Your task to perform on an android device: Go to network settings Image 0: 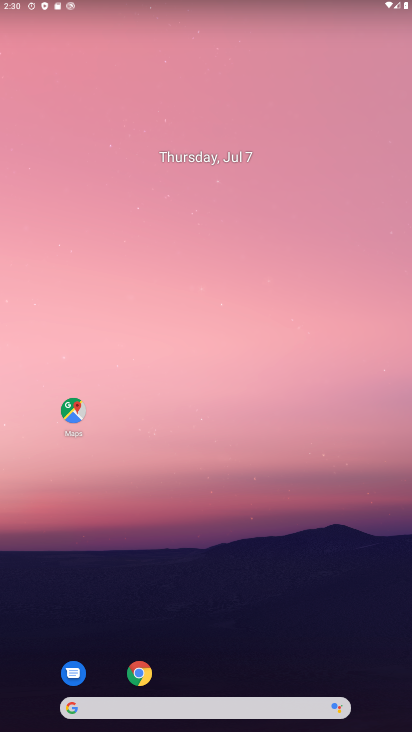
Step 0: drag from (211, 675) to (150, 4)
Your task to perform on an android device: Go to network settings Image 1: 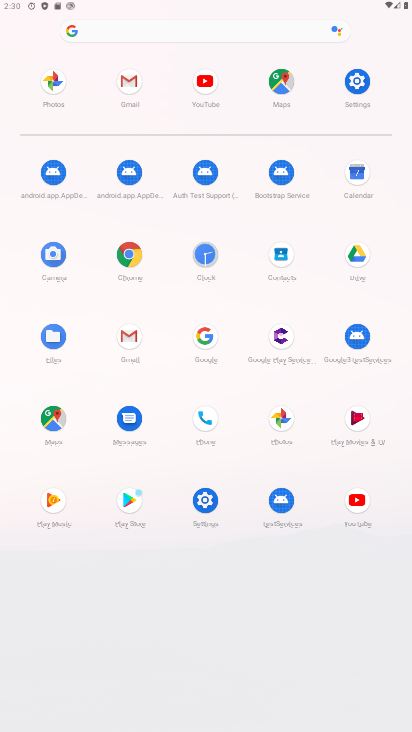
Step 1: click (357, 72)
Your task to perform on an android device: Go to network settings Image 2: 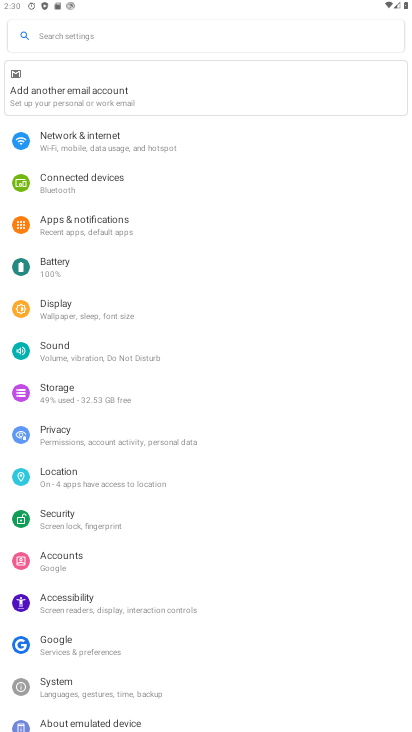
Step 2: click (80, 150)
Your task to perform on an android device: Go to network settings Image 3: 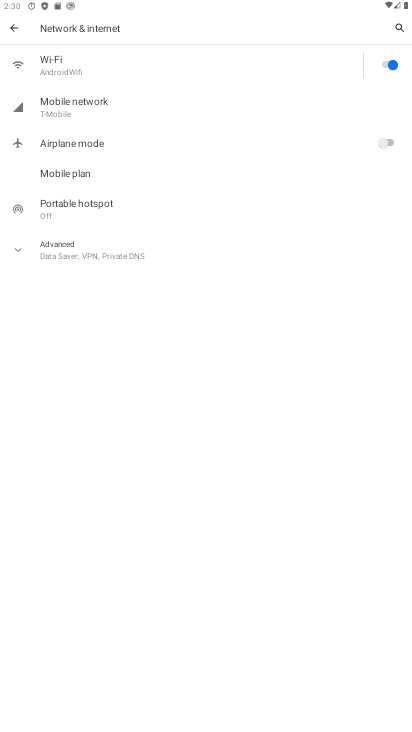
Step 3: click (49, 103)
Your task to perform on an android device: Go to network settings Image 4: 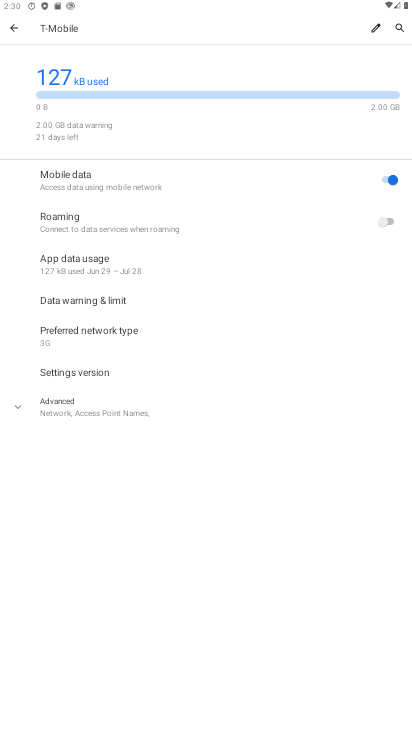
Step 4: task complete